Your task to perform on an android device: Search for Mexican restaurants on Maps Image 0: 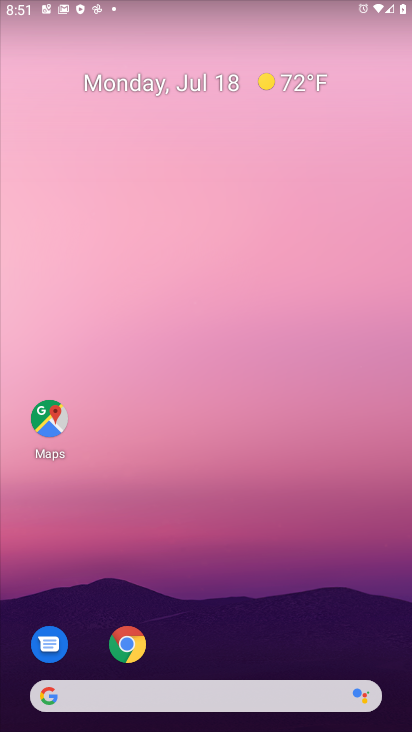
Step 0: drag from (342, 609) to (193, 22)
Your task to perform on an android device: Search for Mexican restaurants on Maps Image 1: 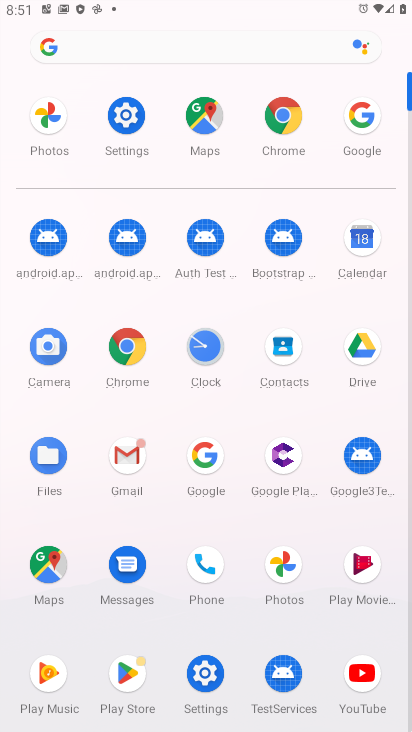
Step 1: click (51, 565)
Your task to perform on an android device: Search for Mexican restaurants on Maps Image 2: 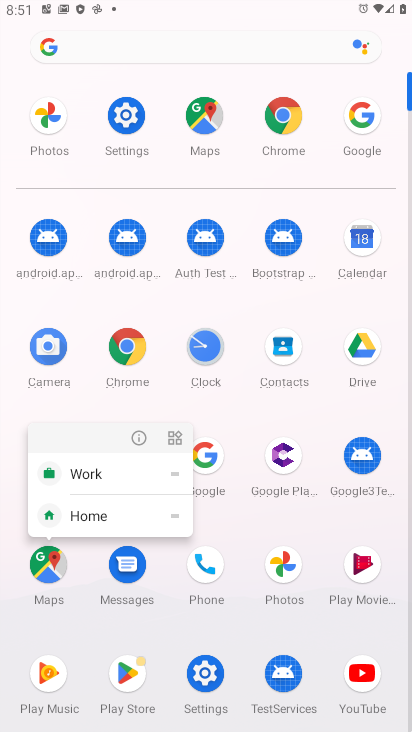
Step 2: click (51, 565)
Your task to perform on an android device: Search for Mexican restaurants on Maps Image 3: 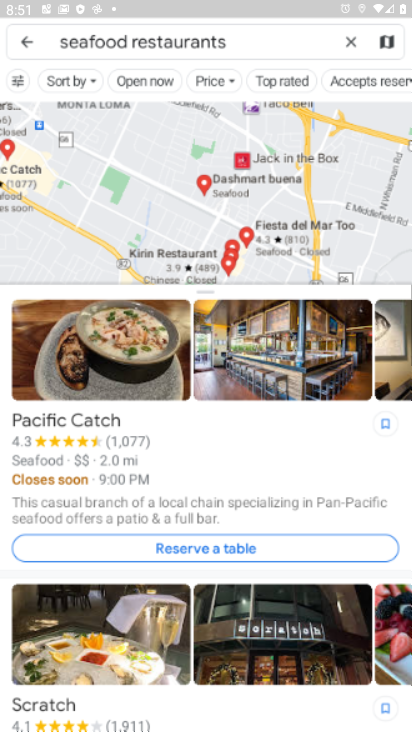
Step 3: click (349, 42)
Your task to perform on an android device: Search for Mexican restaurants on Maps Image 4: 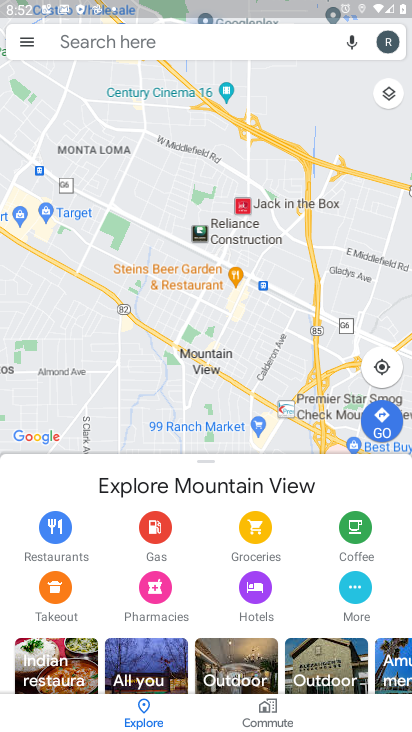
Step 4: click (98, 35)
Your task to perform on an android device: Search for Mexican restaurants on Maps Image 5: 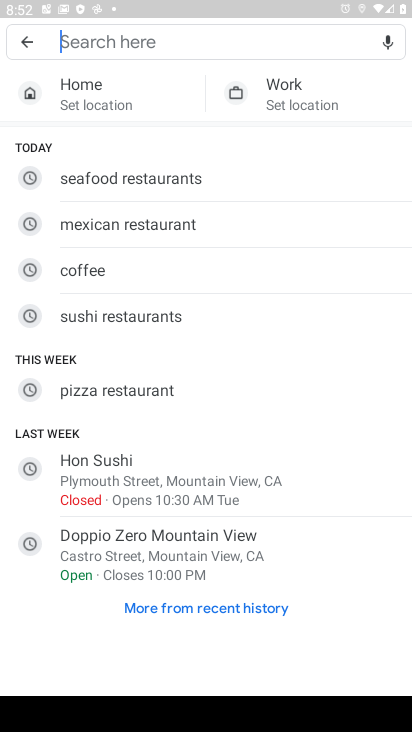
Step 5: click (117, 236)
Your task to perform on an android device: Search for Mexican restaurants on Maps Image 6: 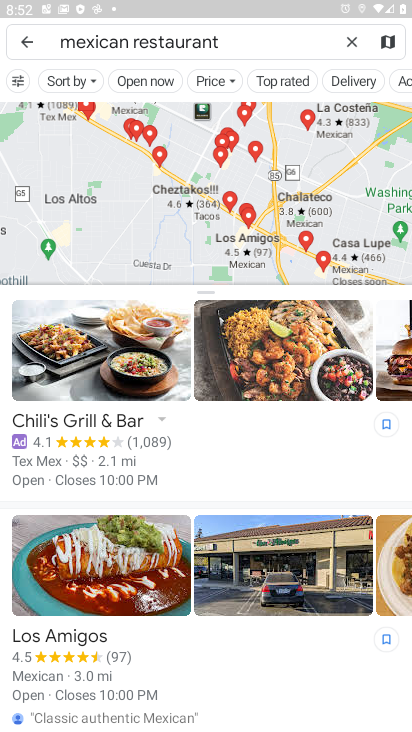
Step 6: task complete